Your task to perform on an android device: Open Reddit.com Image 0: 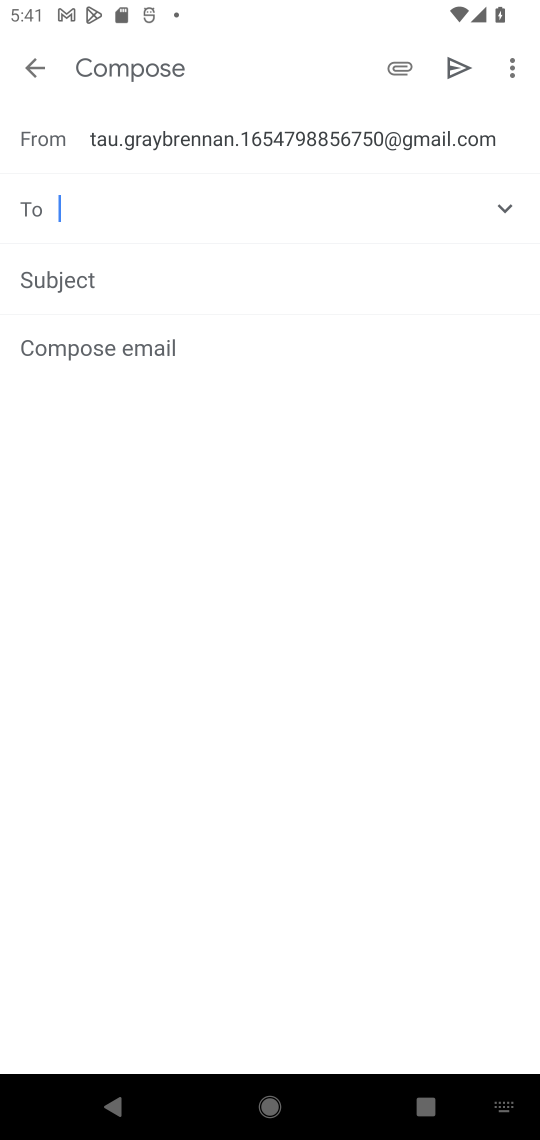
Step 0: press home button
Your task to perform on an android device: Open Reddit.com Image 1: 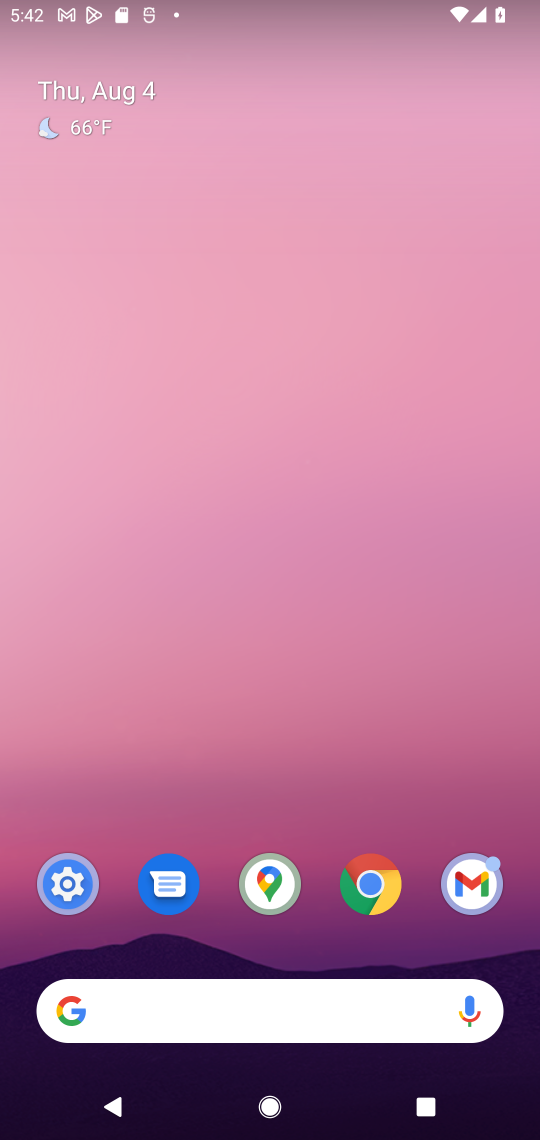
Step 1: click (352, 932)
Your task to perform on an android device: Open Reddit.com Image 2: 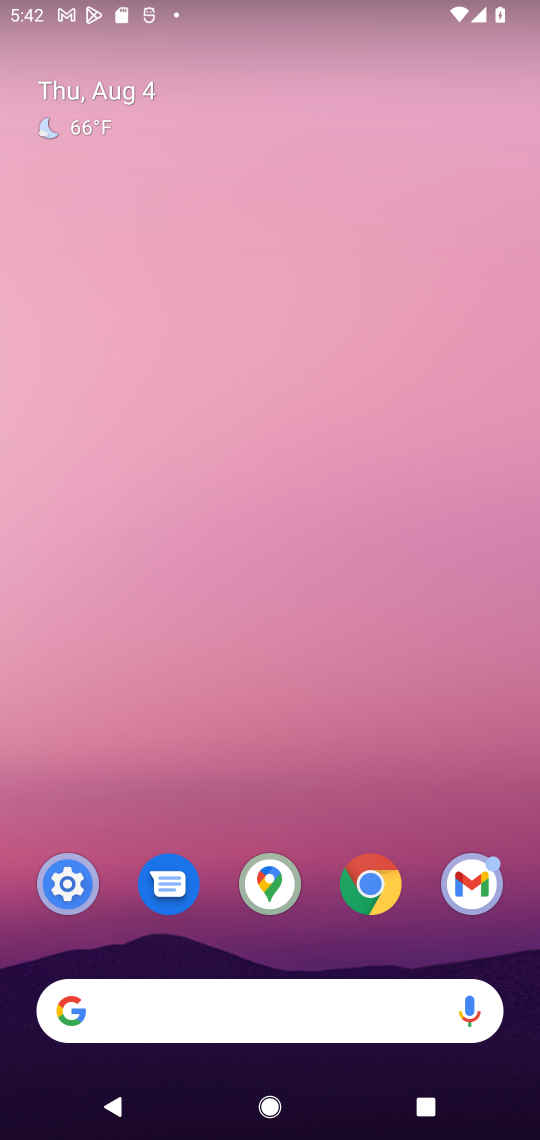
Step 2: click (354, 918)
Your task to perform on an android device: Open Reddit.com Image 3: 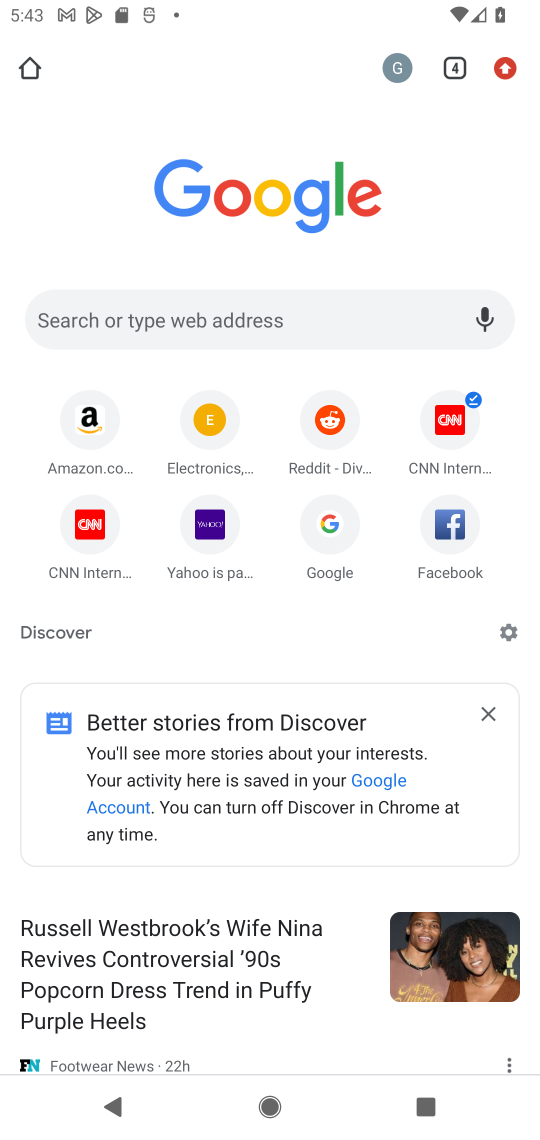
Step 3: click (301, 402)
Your task to perform on an android device: Open Reddit.com Image 4: 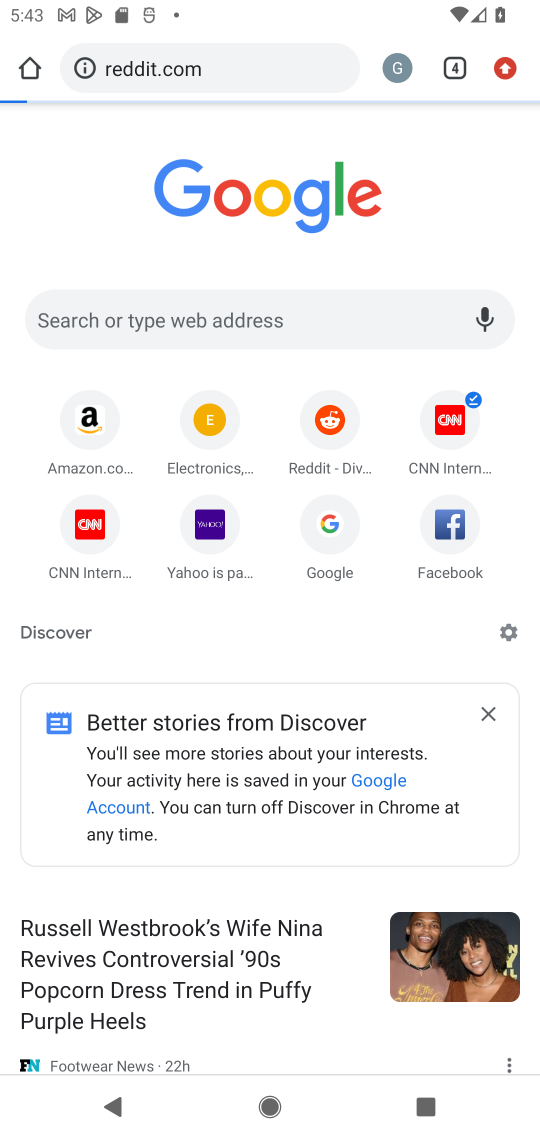
Step 4: task complete